Your task to perform on an android device: toggle wifi Image 0: 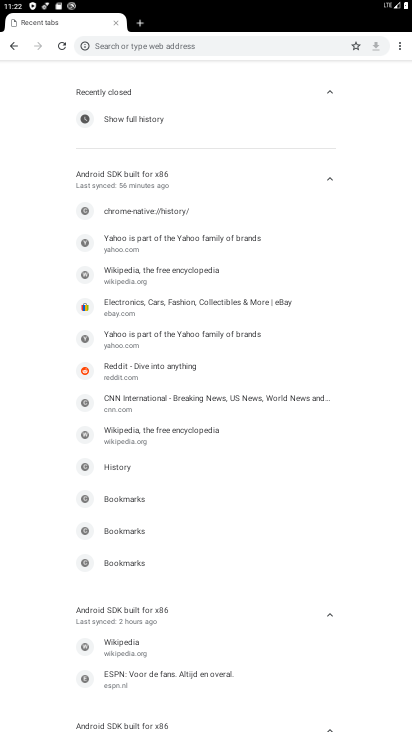
Step 0: press home button
Your task to perform on an android device: toggle wifi Image 1: 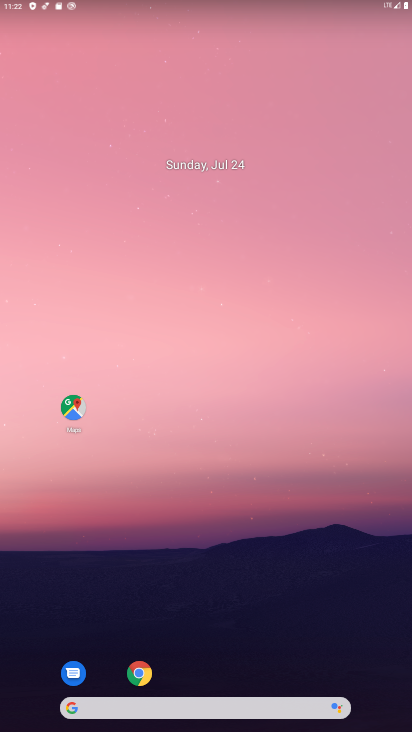
Step 1: drag from (194, 708) to (222, 172)
Your task to perform on an android device: toggle wifi Image 2: 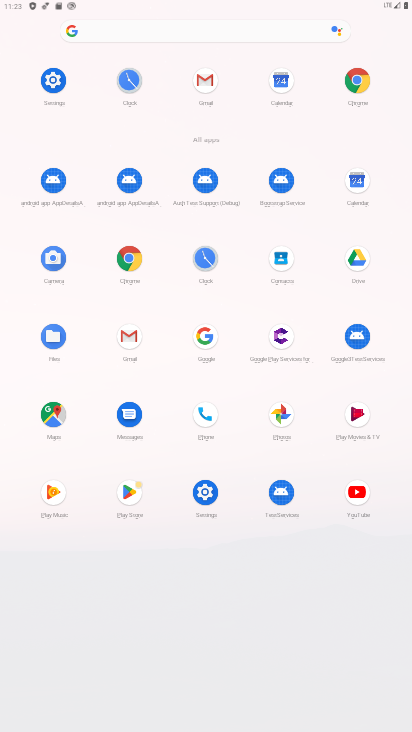
Step 2: click (54, 81)
Your task to perform on an android device: toggle wifi Image 3: 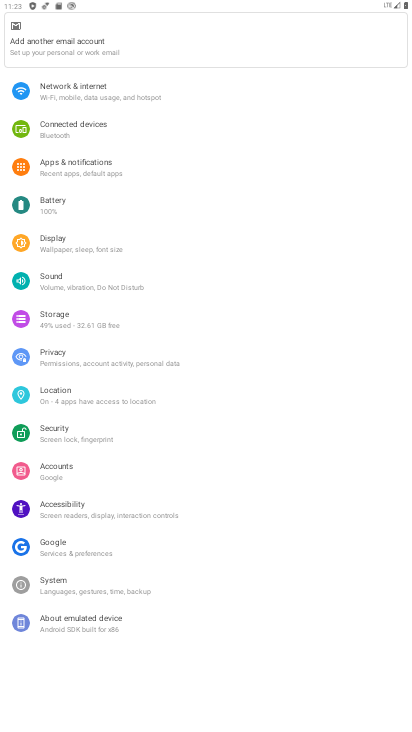
Step 3: click (81, 96)
Your task to perform on an android device: toggle wifi Image 4: 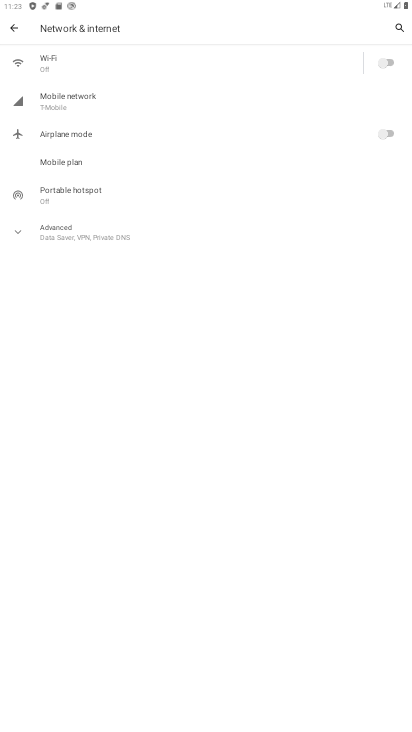
Step 4: click (385, 62)
Your task to perform on an android device: toggle wifi Image 5: 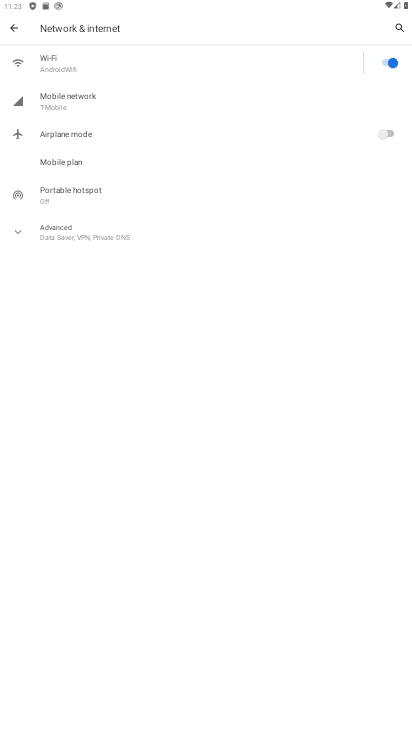
Step 5: task complete